Your task to perform on an android device: Go to calendar. Show me events next week Image 0: 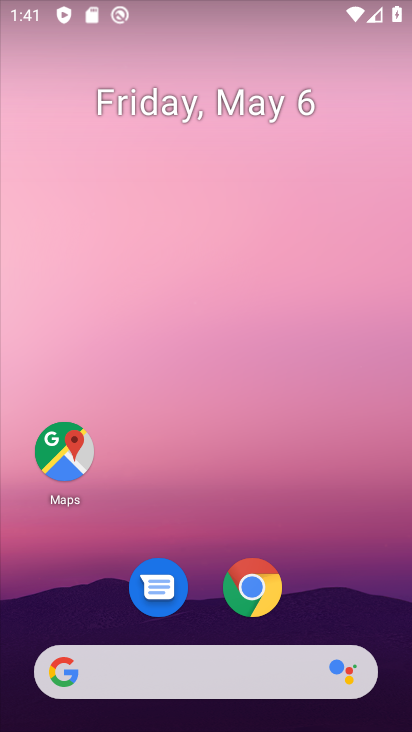
Step 0: drag from (352, 561) to (312, 168)
Your task to perform on an android device: Go to calendar. Show me events next week Image 1: 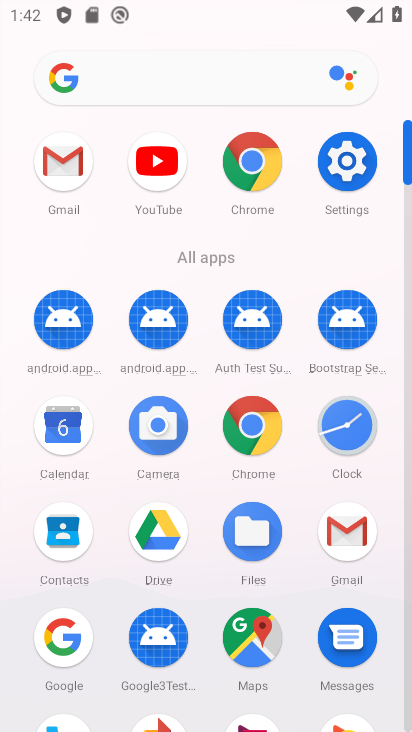
Step 1: click (69, 443)
Your task to perform on an android device: Go to calendar. Show me events next week Image 2: 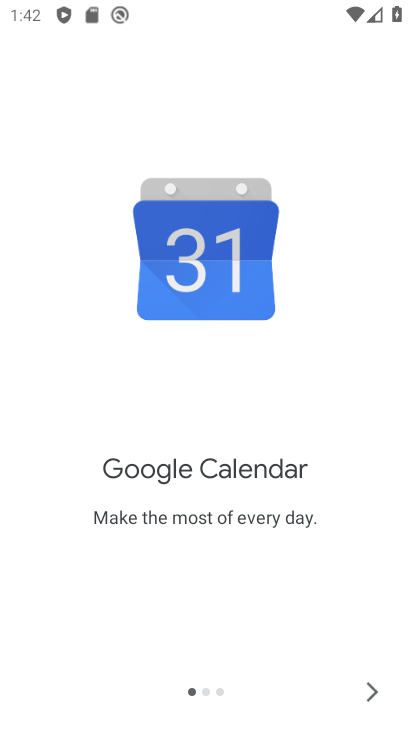
Step 2: click (362, 699)
Your task to perform on an android device: Go to calendar. Show me events next week Image 3: 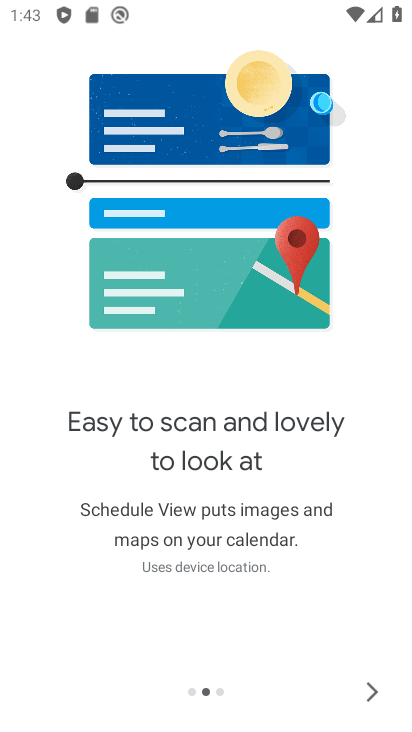
Step 3: click (369, 684)
Your task to perform on an android device: Go to calendar. Show me events next week Image 4: 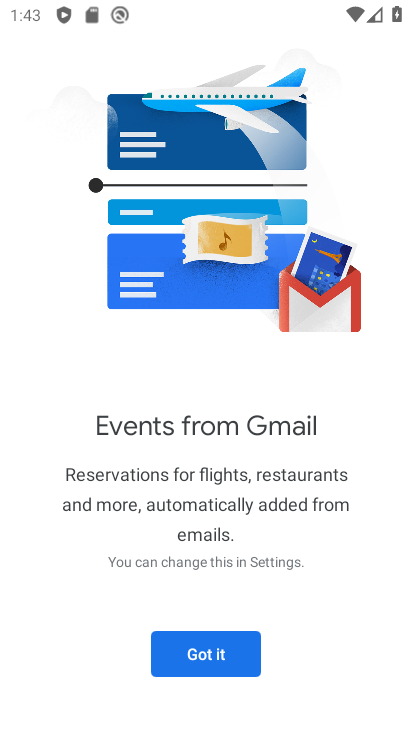
Step 4: click (190, 648)
Your task to perform on an android device: Go to calendar. Show me events next week Image 5: 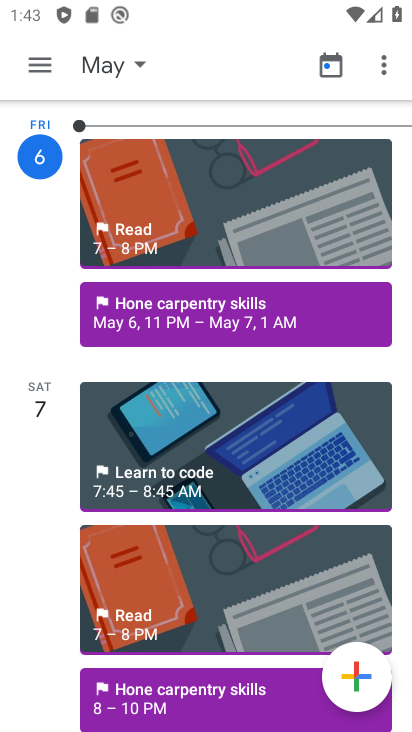
Step 5: click (128, 59)
Your task to perform on an android device: Go to calendar. Show me events next week Image 6: 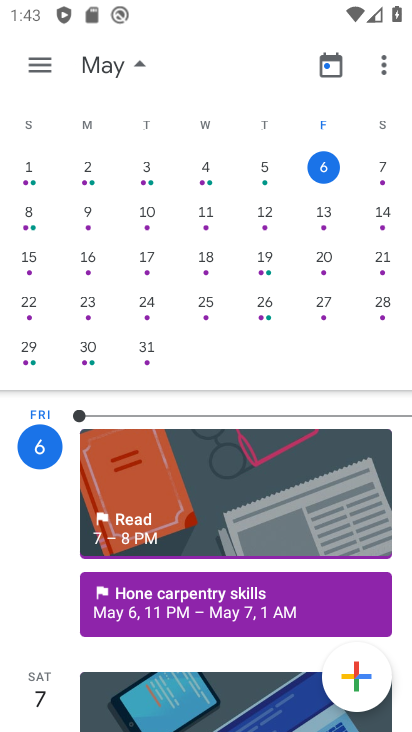
Step 6: click (383, 166)
Your task to perform on an android device: Go to calendar. Show me events next week Image 7: 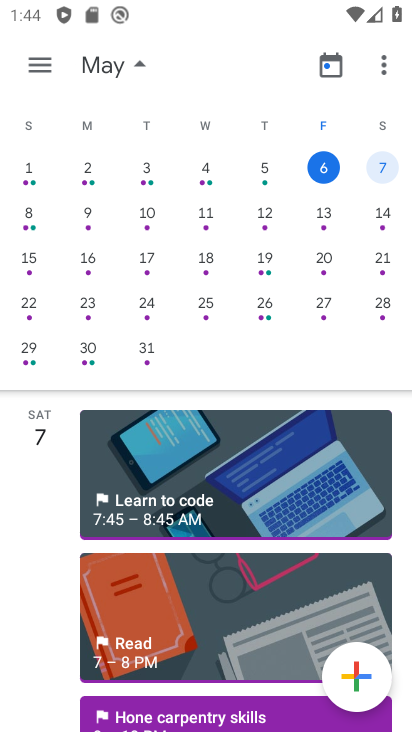
Step 7: task complete